Your task to perform on an android device: change the upload size in google photos Image 0: 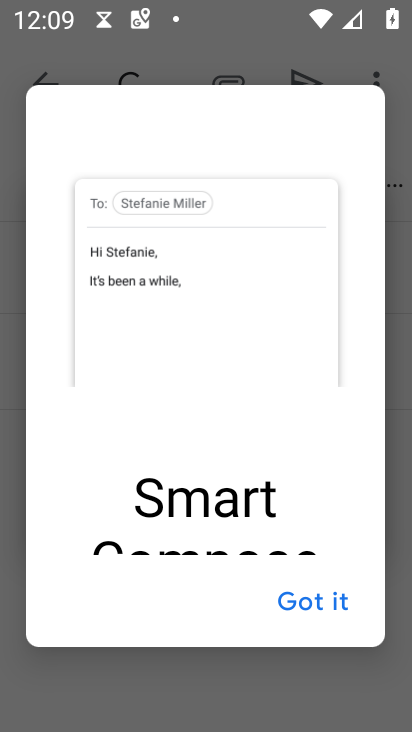
Step 0: press home button
Your task to perform on an android device: change the upload size in google photos Image 1: 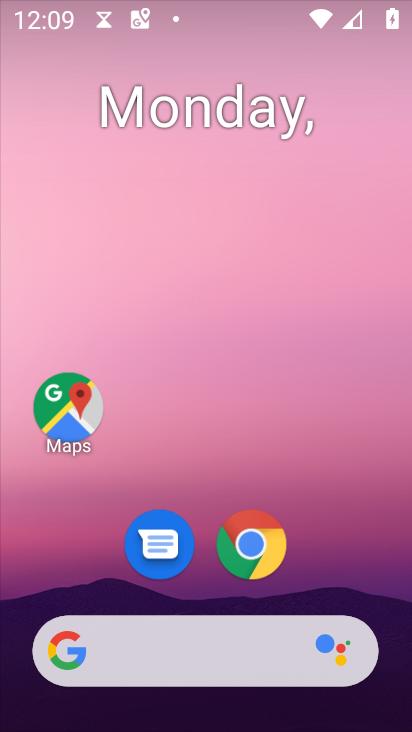
Step 1: drag from (329, 544) to (345, 277)
Your task to perform on an android device: change the upload size in google photos Image 2: 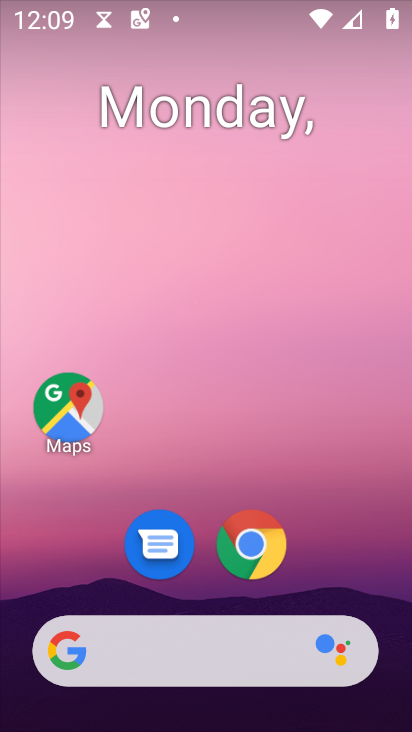
Step 2: click (354, 260)
Your task to perform on an android device: change the upload size in google photos Image 3: 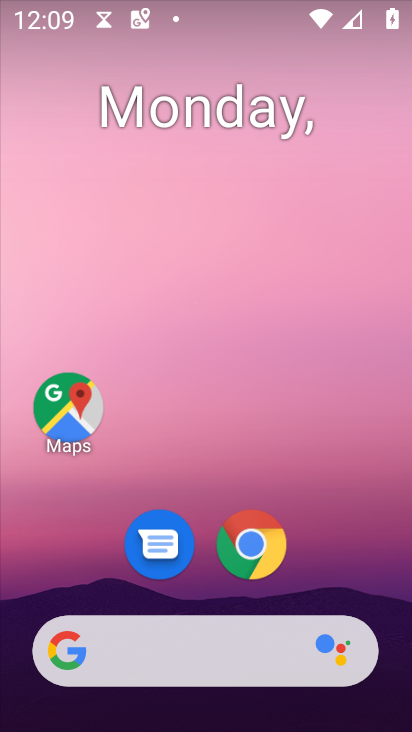
Step 3: drag from (329, 531) to (343, 296)
Your task to perform on an android device: change the upload size in google photos Image 4: 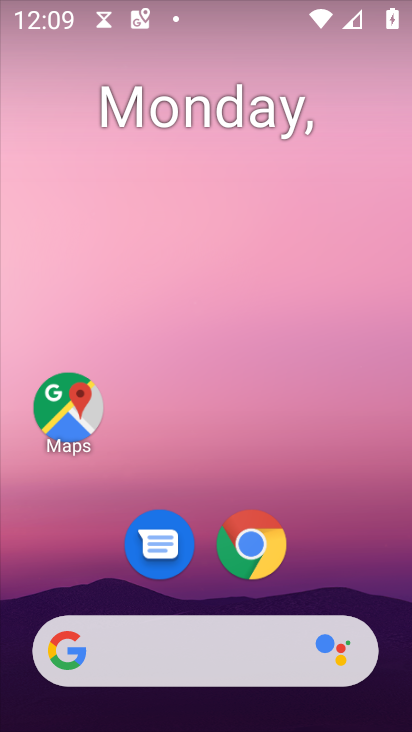
Step 4: drag from (323, 544) to (358, 260)
Your task to perform on an android device: change the upload size in google photos Image 5: 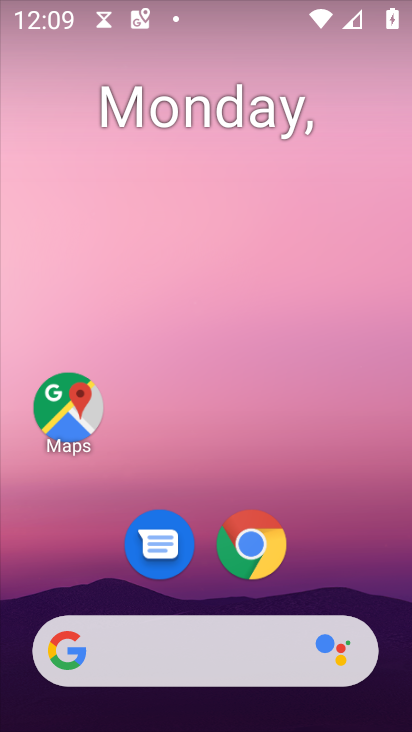
Step 5: drag from (322, 574) to (327, 232)
Your task to perform on an android device: change the upload size in google photos Image 6: 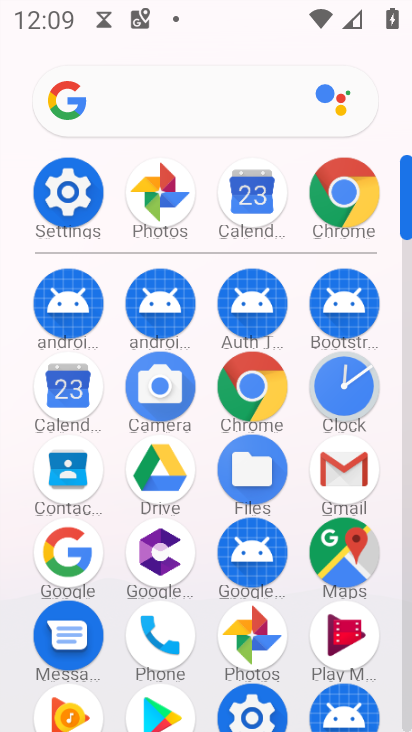
Step 6: click (242, 629)
Your task to perform on an android device: change the upload size in google photos Image 7: 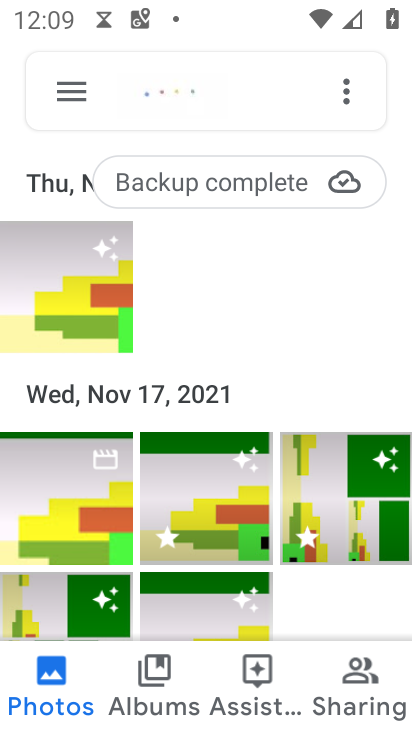
Step 7: click (68, 87)
Your task to perform on an android device: change the upload size in google photos Image 8: 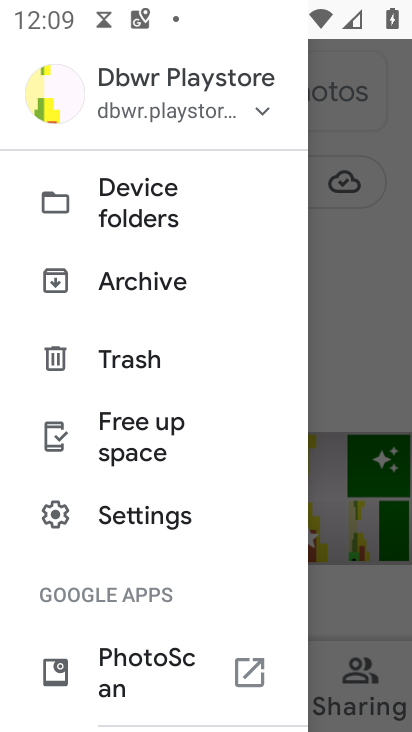
Step 8: click (139, 519)
Your task to perform on an android device: change the upload size in google photos Image 9: 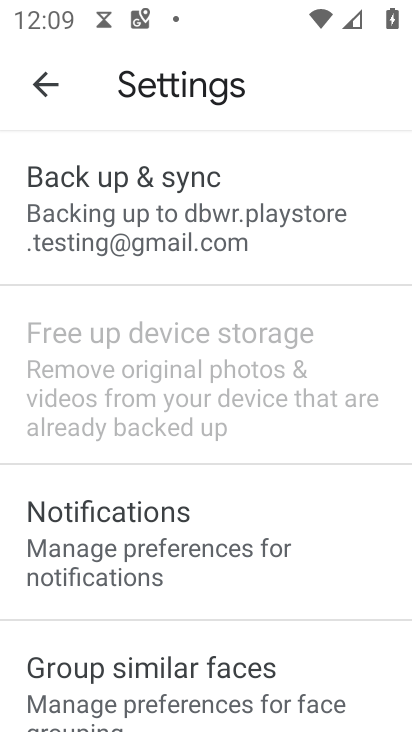
Step 9: click (177, 203)
Your task to perform on an android device: change the upload size in google photos Image 10: 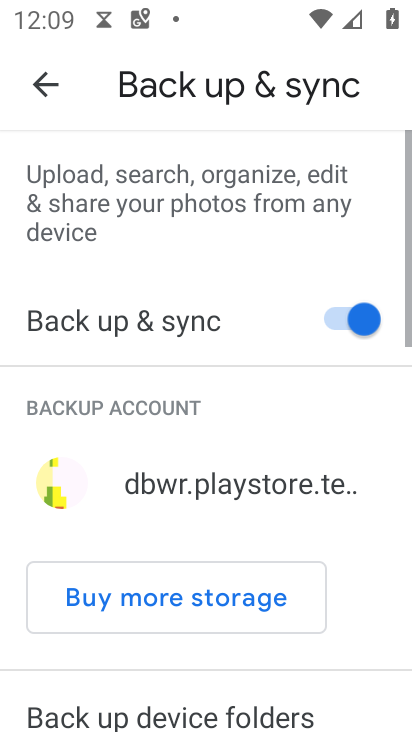
Step 10: drag from (213, 531) to (233, 213)
Your task to perform on an android device: change the upload size in google photos Image 11: 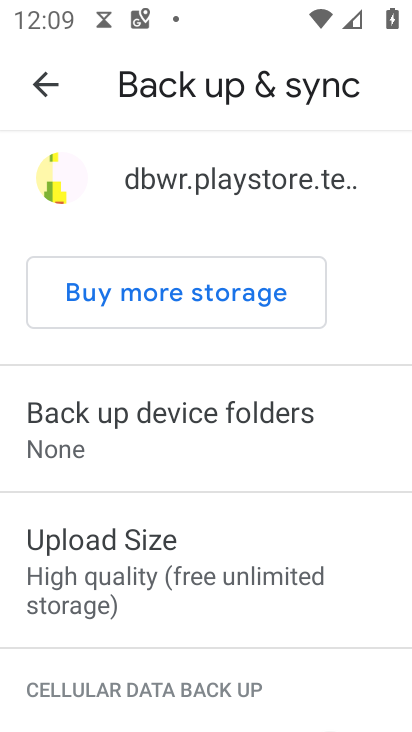
Step 11: click (208, 544)
Your task to perform on an android device: change the upload size in google photos Image 12: 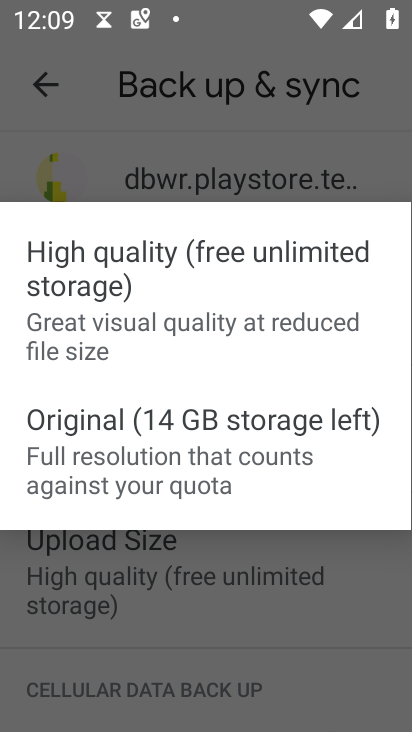
Step 12: click (180, 454)
Your task to perform on an android device: change the upload size in google photos Image 13: 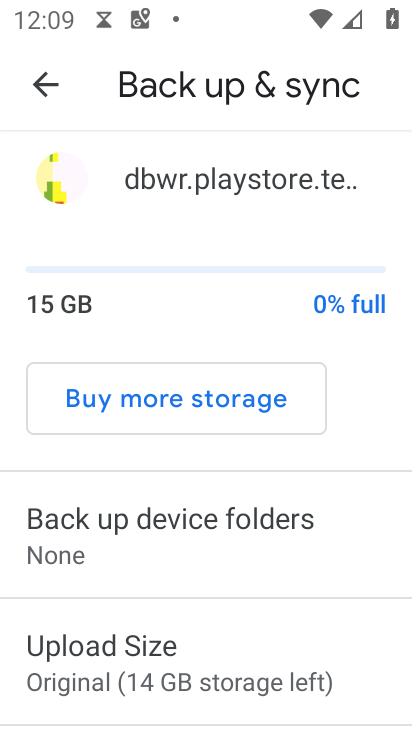
Step 13: task complete